Your task to perform on an android device: read, delete, or share a saved page in the chrome app Image 0: 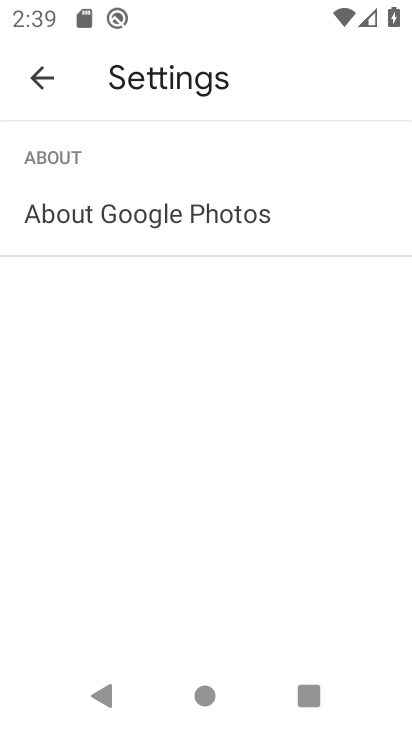
Step 0: press home button
Your task to perform on an android device: read, delete, or share a saved page in the chrome app Image 1: 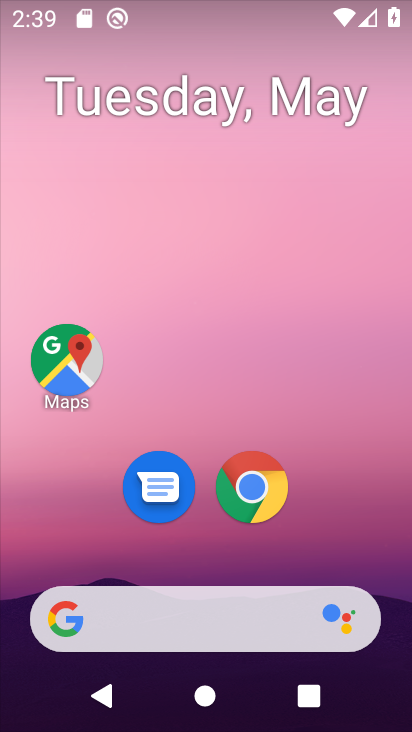
Step 1: click (248, 487)
Your task to perform on an android device: read, delete, or share a saved page in the chrome app Image 2: 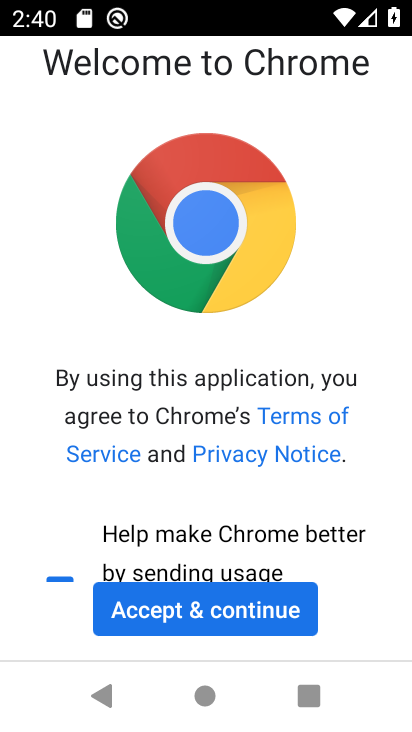
Step 2: click (255, 592)
Your task to perform on an android device: read, delete, or share a saved page in the chrome app Image 3: 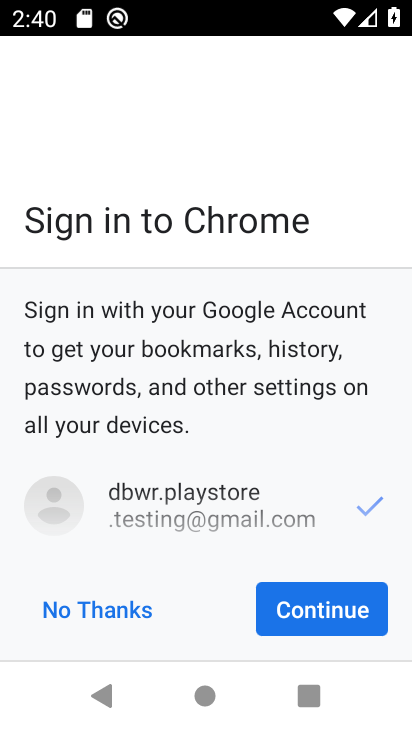
Step 3: click (277, 609)
Your task to perform on an android device: read, delete, or share a saved page in the chrome app Image 4: 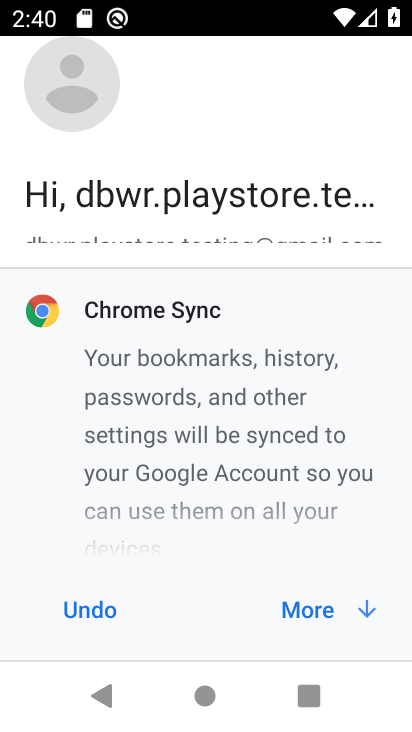
Step 4: click (289, 606)
Your task to perform on an android device: read, delete, or share a saved page in the chrome app Image 5: 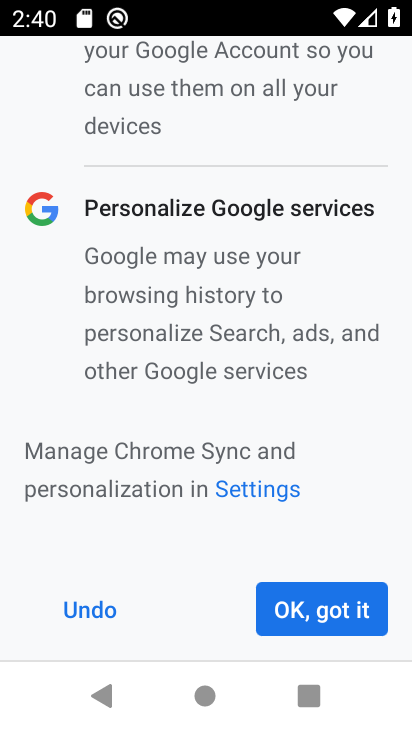
Step 5: click (307, 614)
Your task to perform on an android device: read, delete, or share a saved page in the chrome app Image 6: 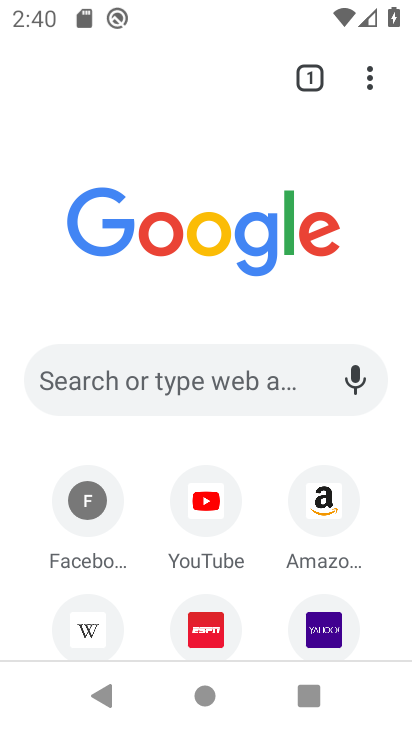
Step 6: click (366, 74)
Your task to perform on an android device: read, delete, or share a saved page in the chrome app Image 7: 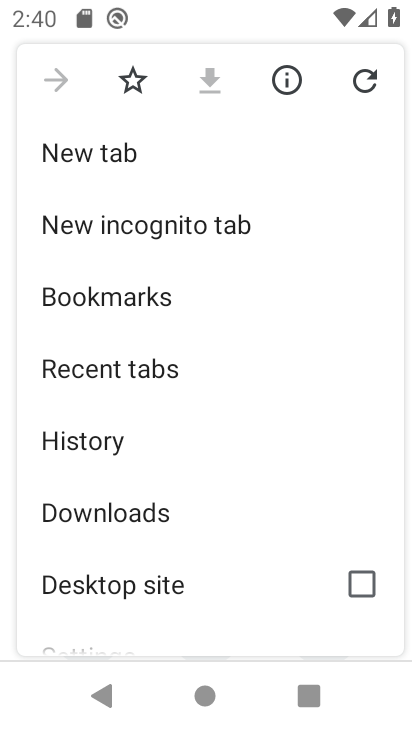
Step 7: drag from (247, 613) to (262, 383)
Your task to perform on an android device: read, delete, or share a saved page in the chrome app Image 8: 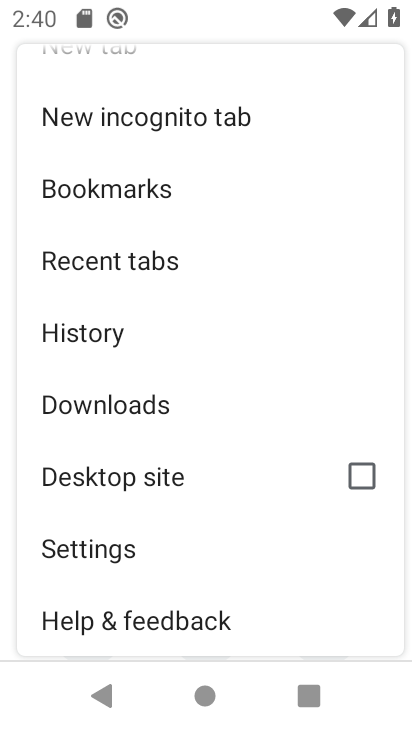
Step 8: click (93, 547)
Your task to perform on an android device: read, delete, or share a saved page in the chrome app Image 9: 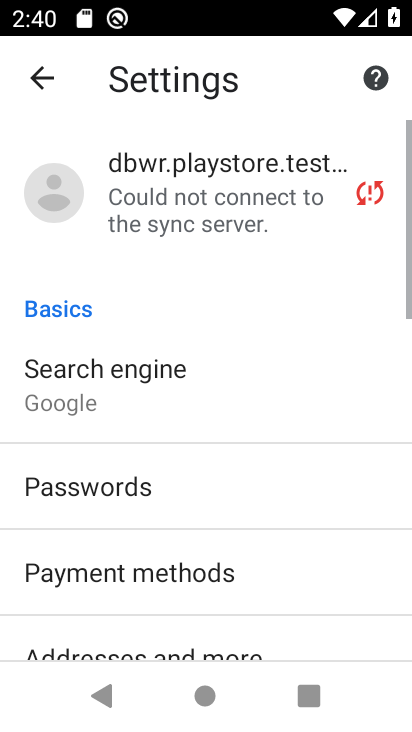
Step 9: press back button
Your task to perform on an android device: read, delete, or share a saved page in the chrome app Image 10: 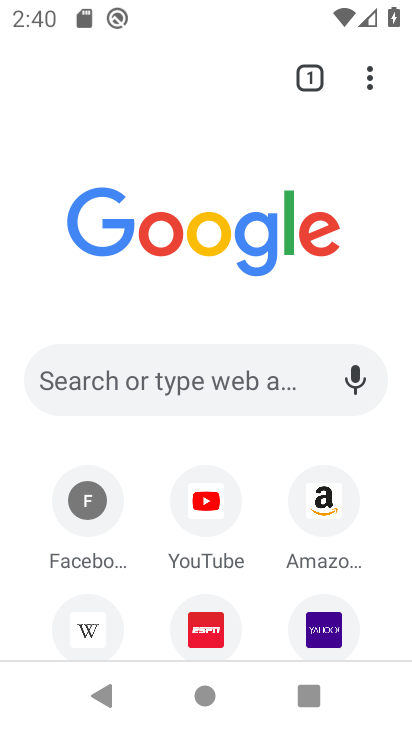
Step 10: click (370, 72)
Your task to perform on an android device: read, delete, or share a saved page in the chrome app Image 11: 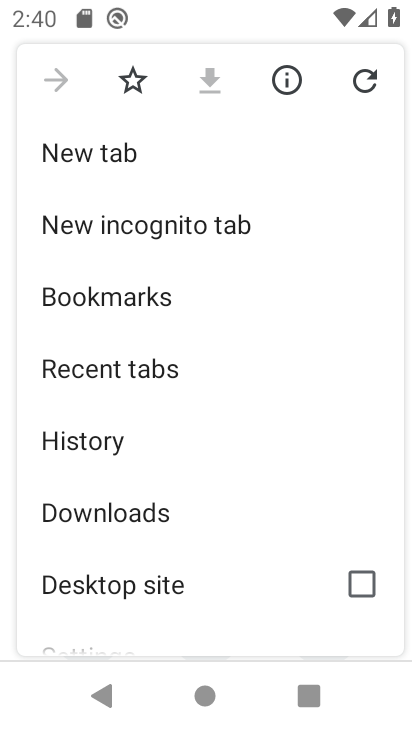
Step 11: drag from (236, 573) to (256, 326)
Your task to perform on an android device: read, delete, or share a saved page in the chrome app Image 12: 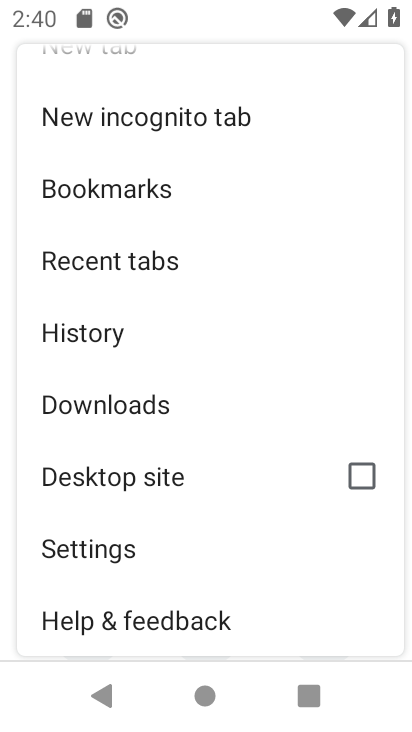
Step 12: click (156, 253)
Your task to perform on an android device: read, delete, or share a saved page in the chrome app Image 13: 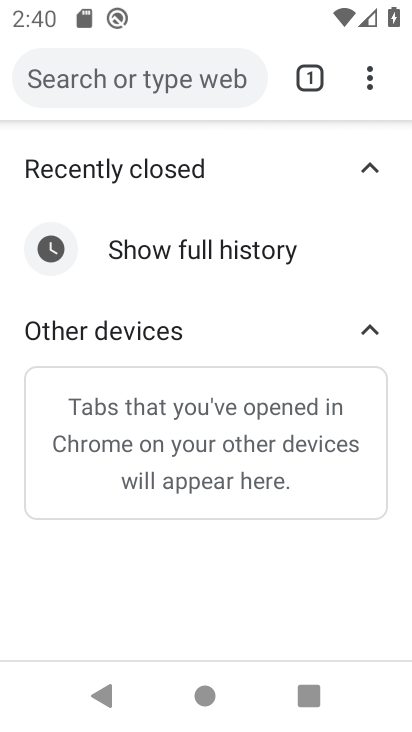
Step 13: press back button
Your task to perform on an android device: read, delete, or share a saved page in the chrome app Image 14: 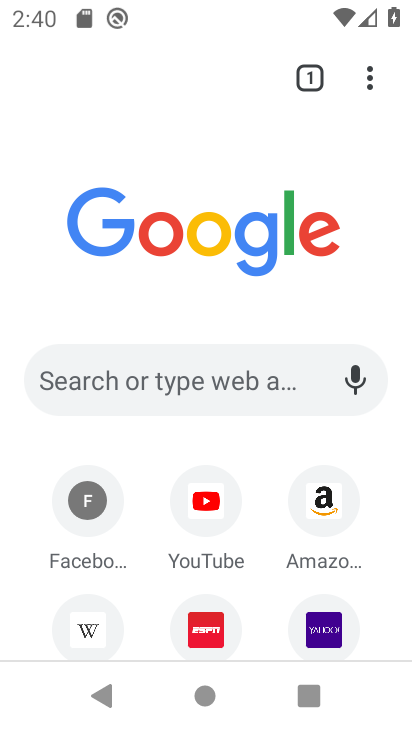
Step 14: click (370, 72)
Your task to perform on an android device: read, delete, or share a saved page in the chrome app Image 15: 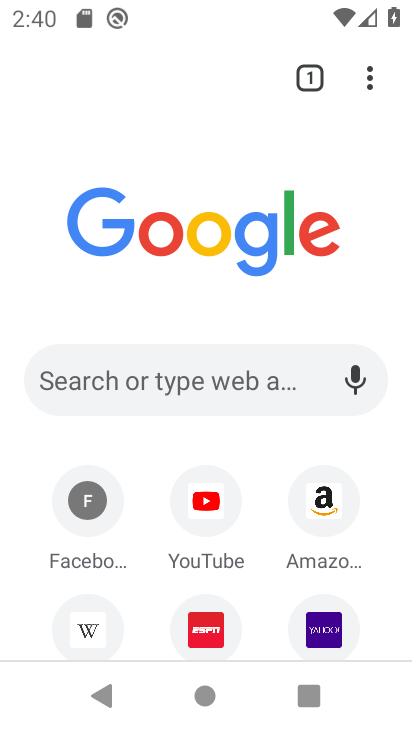
Step 15: click (368, 76)
Your task to perform on an android device: read, delete, or share a saved page in the chrome app Image 16: 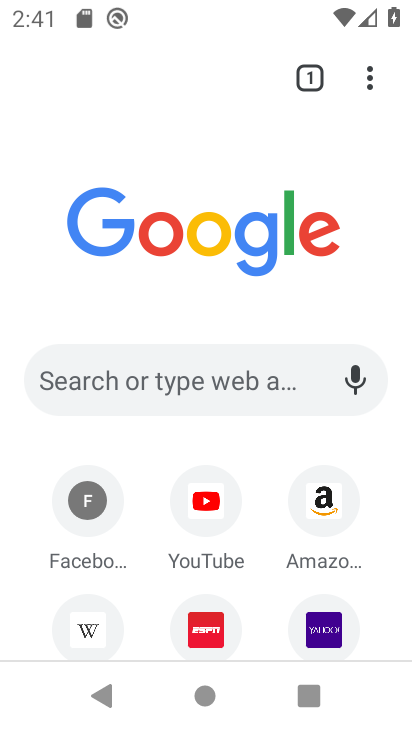
Step 16: click (368, 76)
Your task to perform on an android device: read, delete, or share a saved page in the chrome app Image 17: 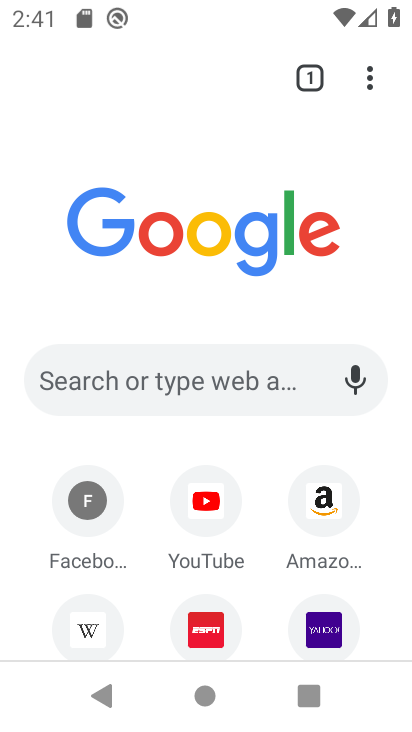
Step 17: click (368, 76)
Your task to perform on an android device: read, delete, or share a saved page in the chrome app Image 18: 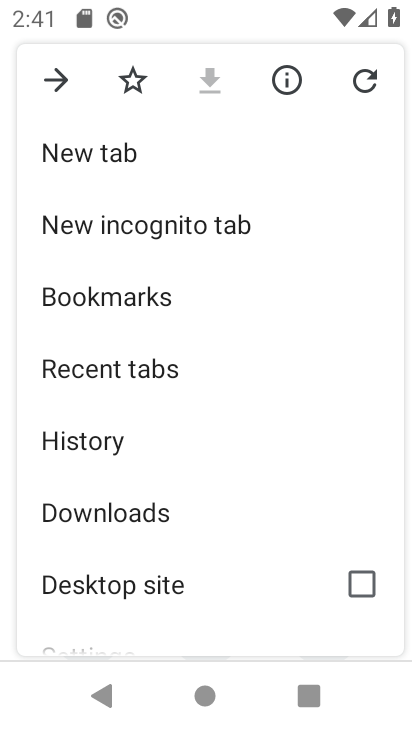
Step 18: drag from (249, 565) to (264, 327)
Your task to perform on an android device: read, delete, or share a saved page in the chrome app Image 19: 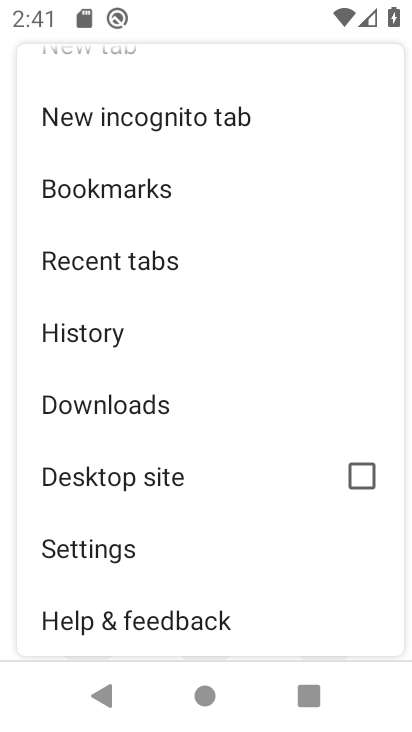
Step 19: click (83, 397)
Your task to perform on an android device: read, delete, or share a saved page in the chrome app Image 20: 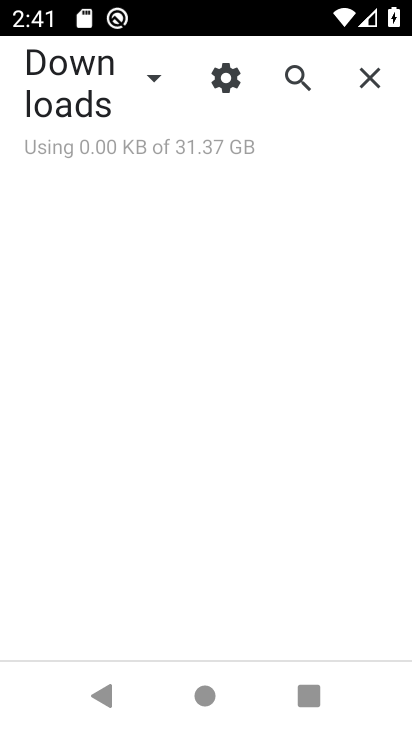
Step 20: task complete